Your task to perform on an android device: What is the news today? Image 0: 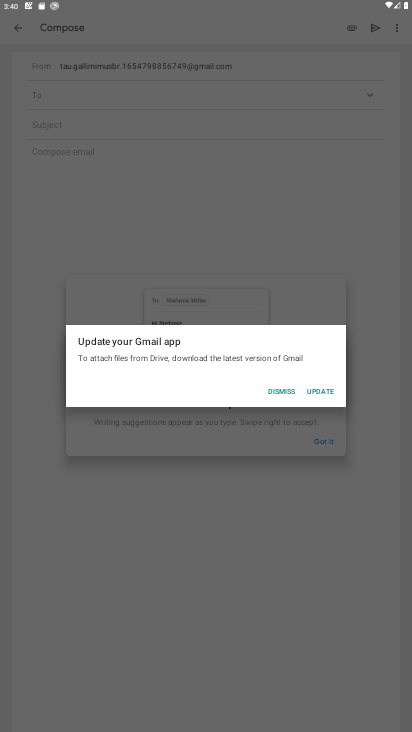
Step 0: press home button
Your task to perform on an android device: What is the news today? Image 1: 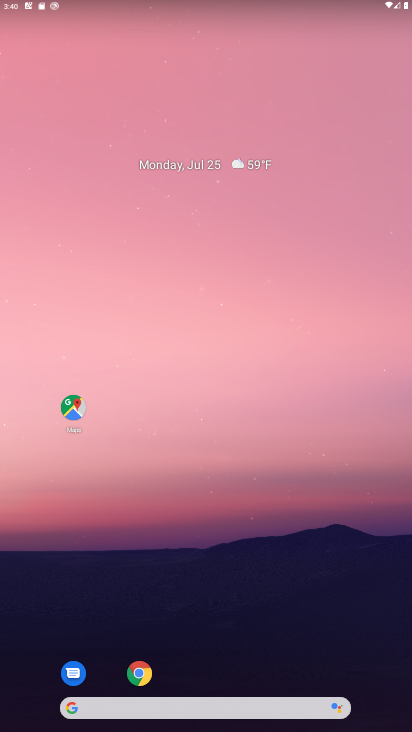
Step 1: task complete